Your task to perform on an android device: Open Chrome and go to the settings page Image 0: 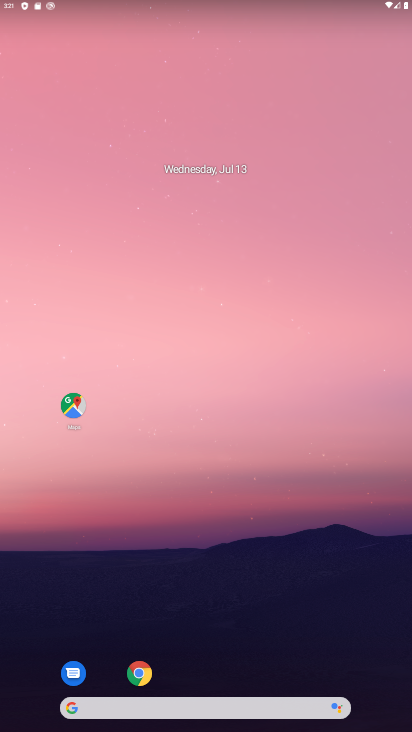
Step 0: drag from (216, 653) to (225, 221)
Your task to perform on an android device: Open Chrome and go to the settings page Image 1: 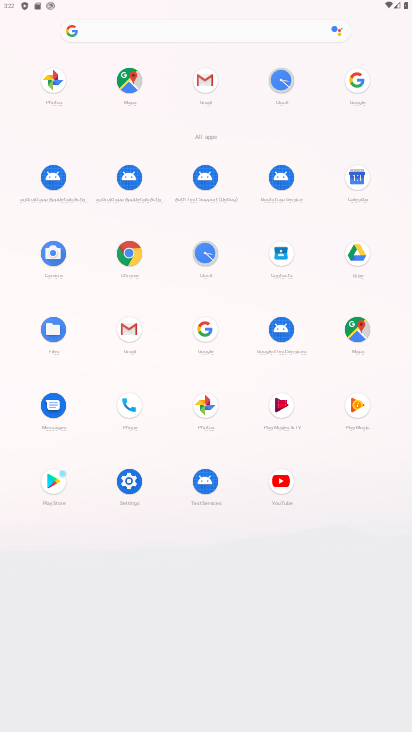
Step 1: click (127, 260)
Your task to perform on an android device: Open Chrome and go to the settings page Image 2: 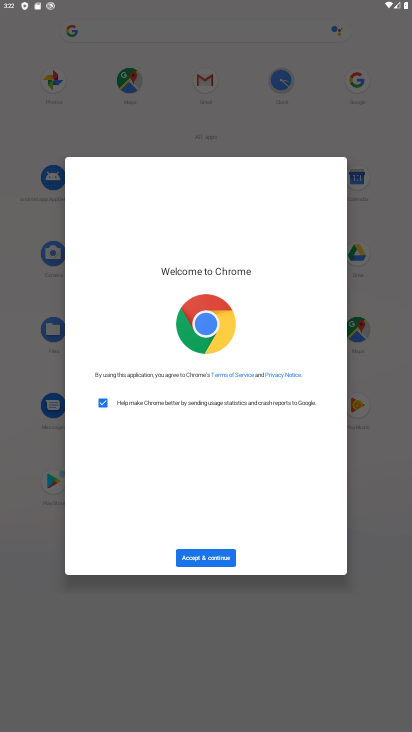
Step 2: click (199, 557)
Your task to perform on an android device: Open Chrome and go to the settings page Image 3: 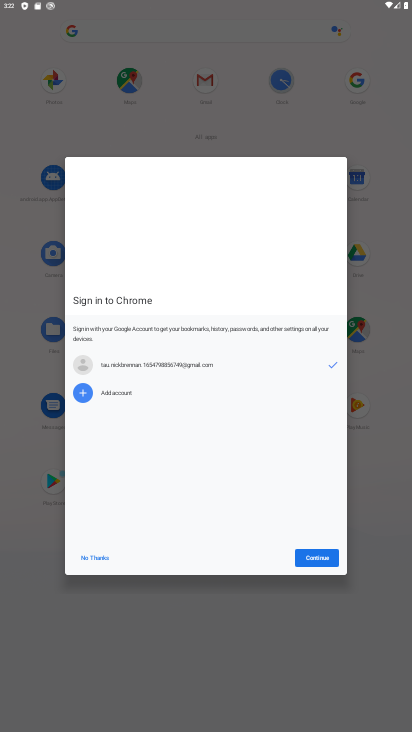
Step 3: click (327, 552)
Your task to perform on an android device: Open Chrome and go to the settings page Image 4: 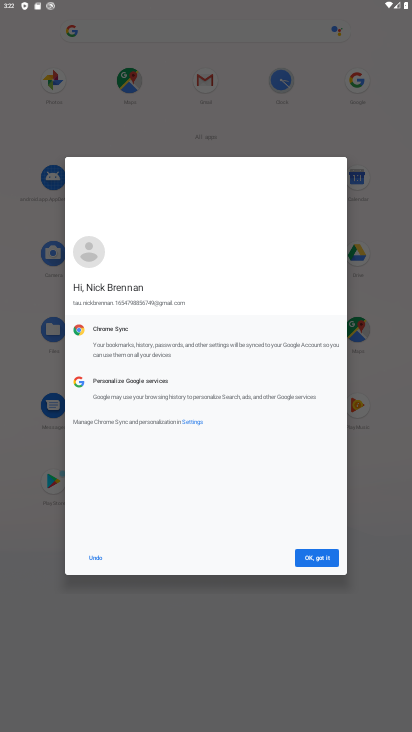
Step 4: click (320, 560)
Your task to perform on an android device: Open Chrome and go to the settings page Image 5: 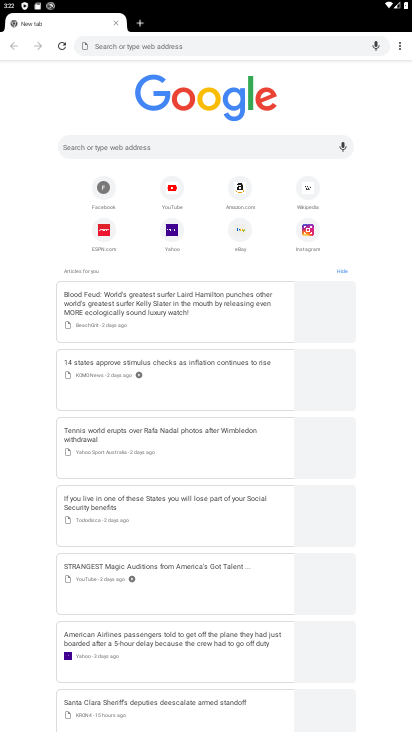
Step 5: click (397, 48)
Your task to perform on an android device: Open Chrome and go to the settings page Image 6: 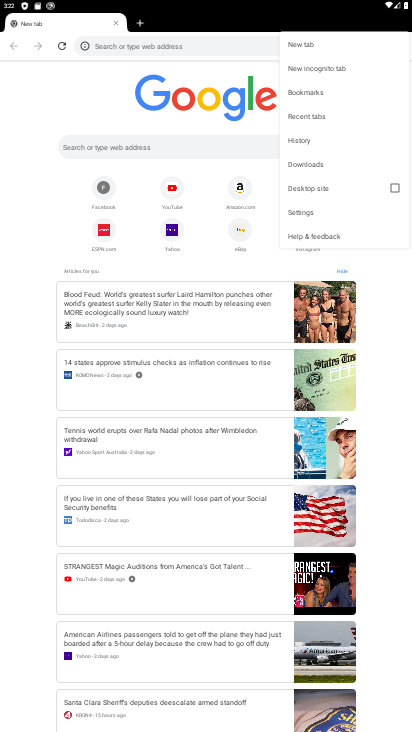
Step 6: click (303, 212)
Your task to perform on an android device: Open Chrome and go to the settings page Image 7: 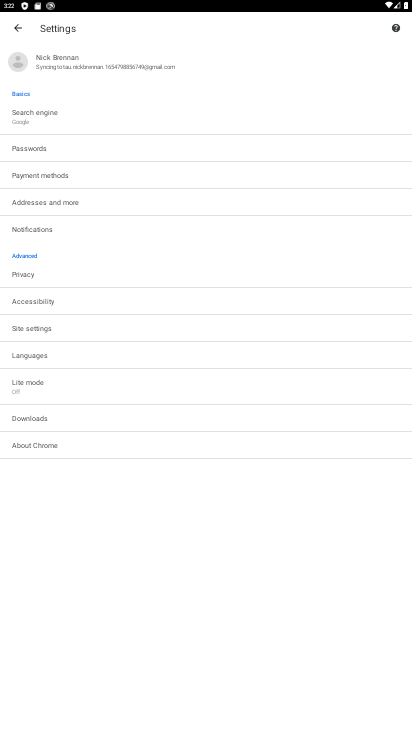
Step 7: task complete